Your task to perform on an android device: find photos in the google photos app Image 0: 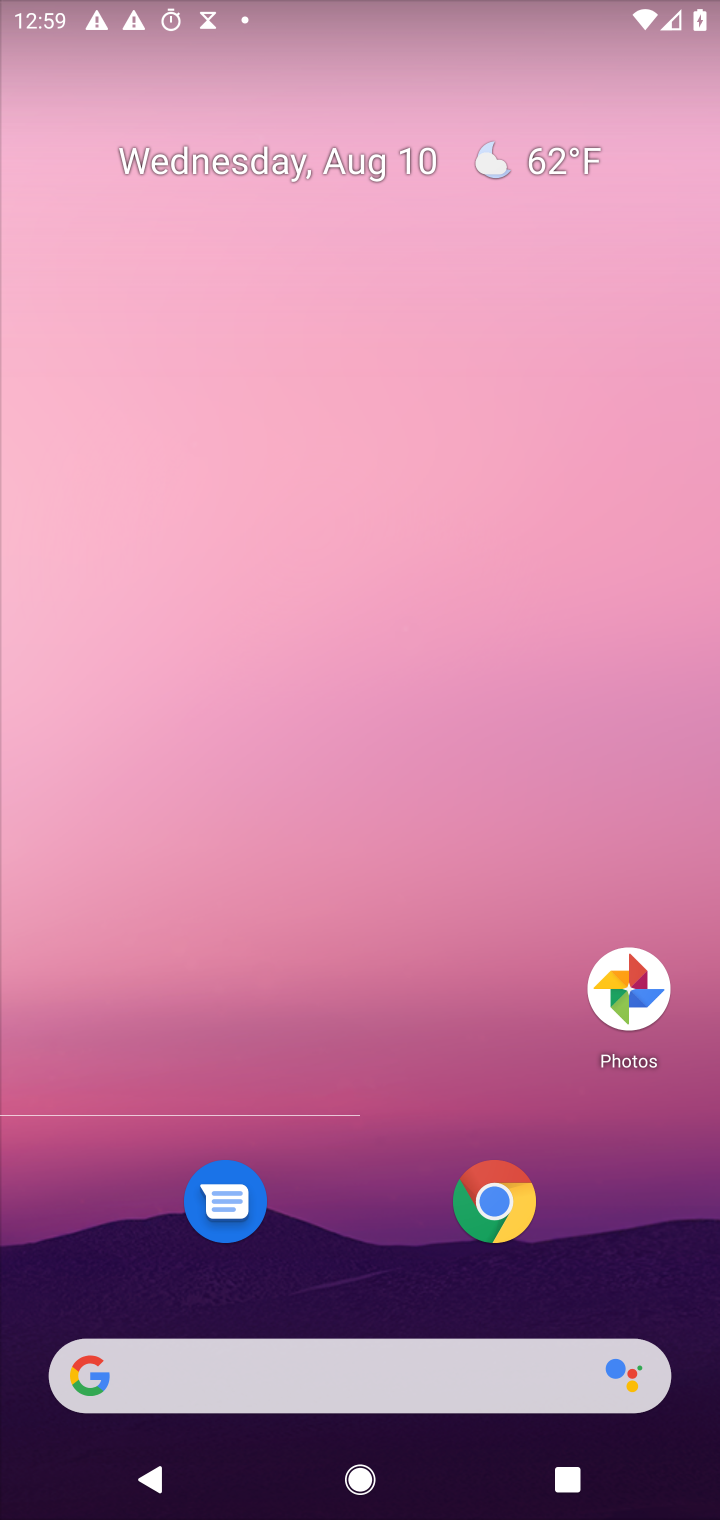
Step 0: press home button
Your task to perform on an android device: find photos in the google photos app Image 1: 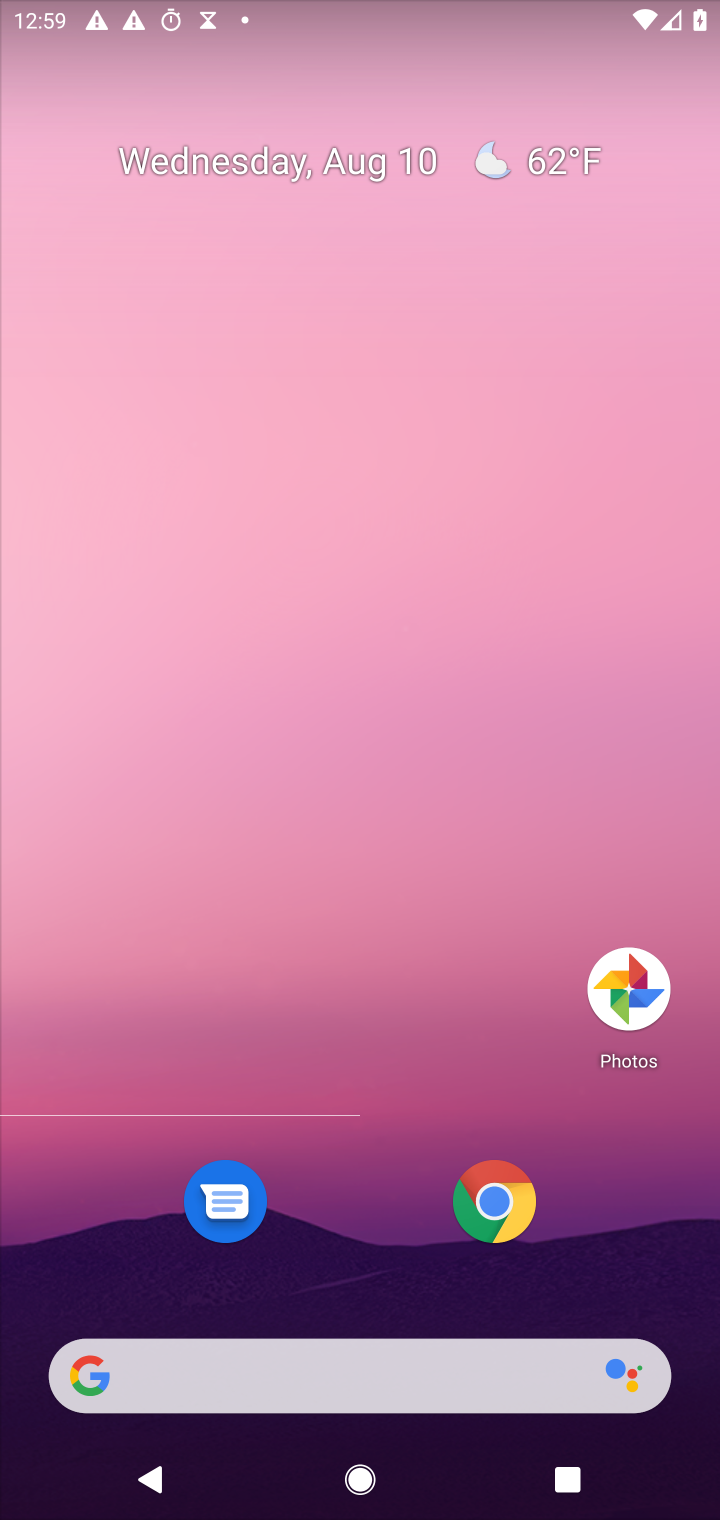
Step 1: drag from (345, 1214) to (281, 3)
Your task to perform on an android device: find photos in the google photos app Image 2: 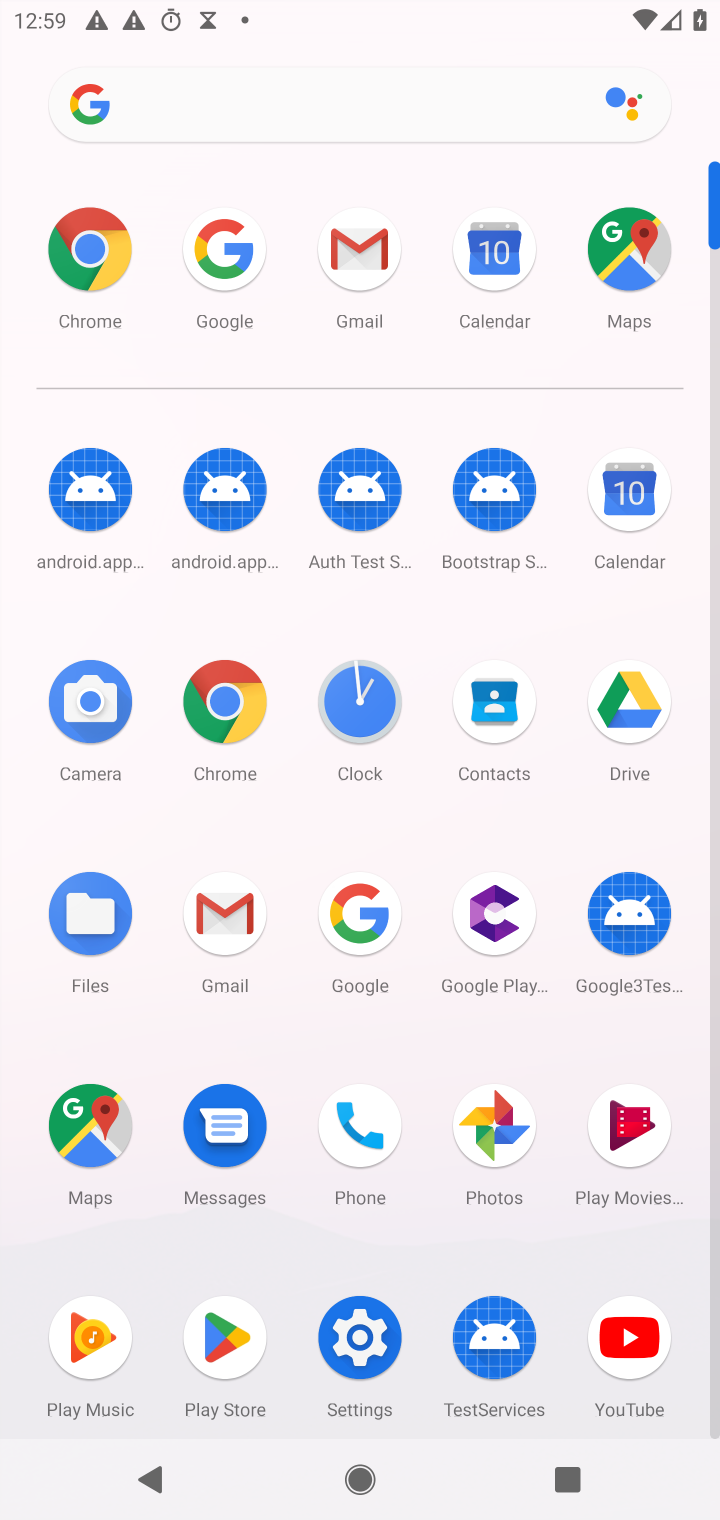
Step 2: click (505, 1134)
Your task to perform on an android device: find photos in the google photos app Image 3: 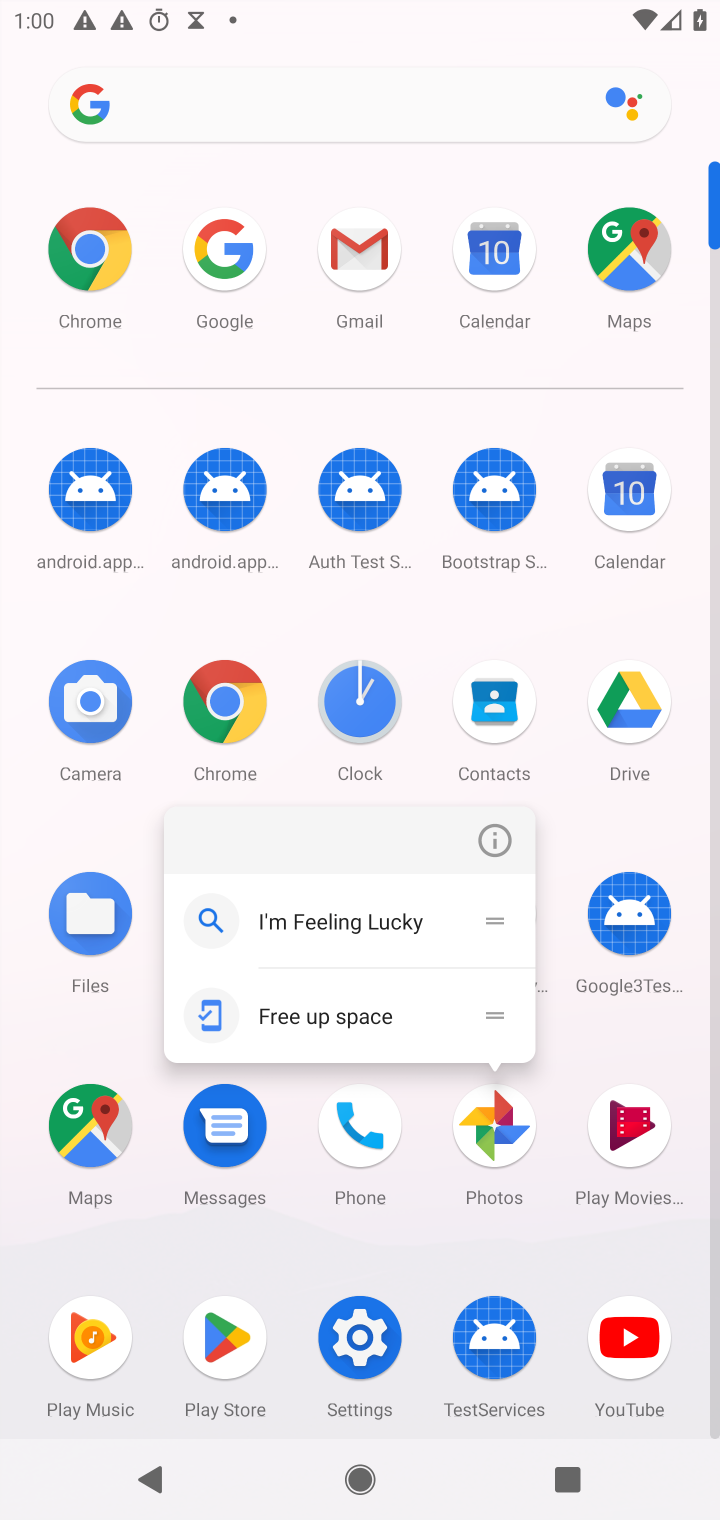
Step 3: click (504, 1130)
Your task to perform on an android device: find photos in the google photos app Image 4: 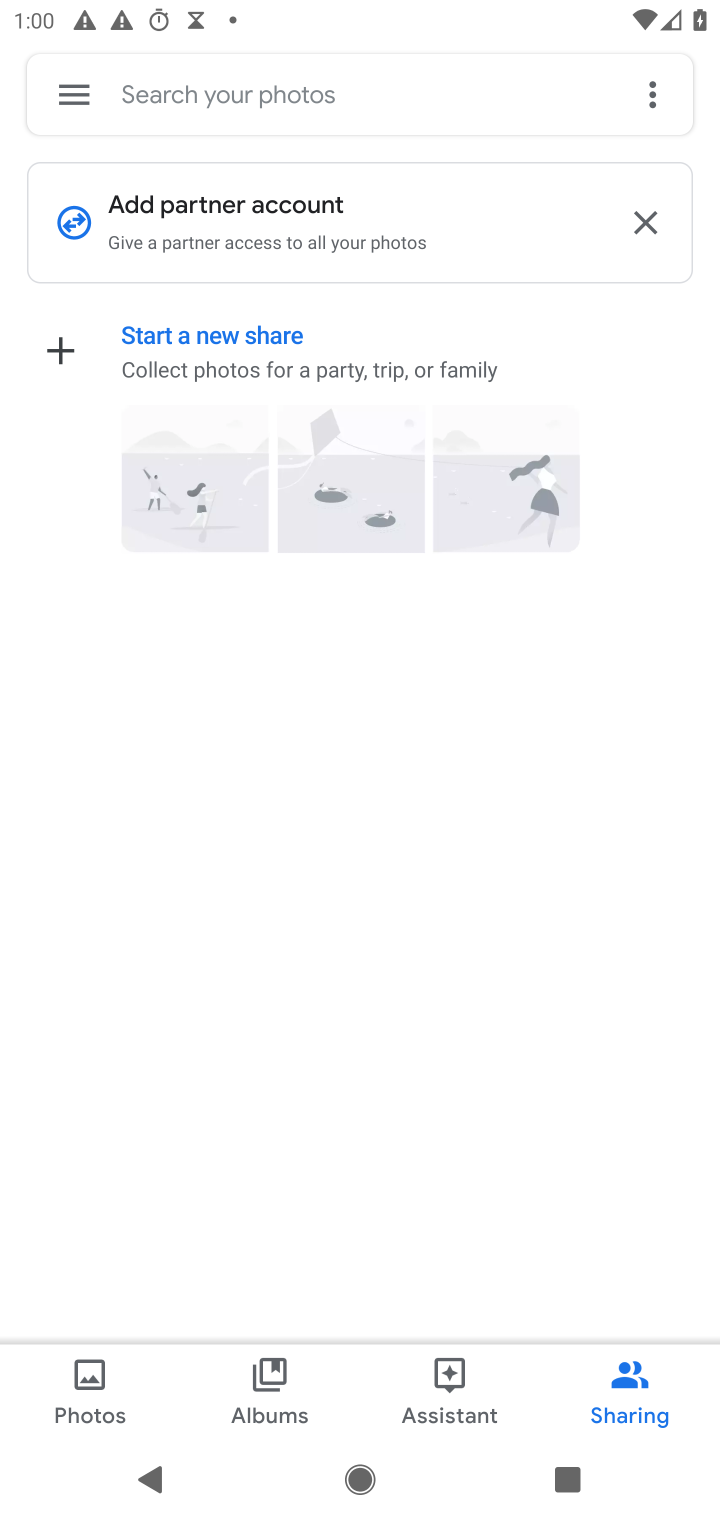
Step 4: click (99, 1382)
Your task to perform on an android device: find photos in the google photos app Image 5: 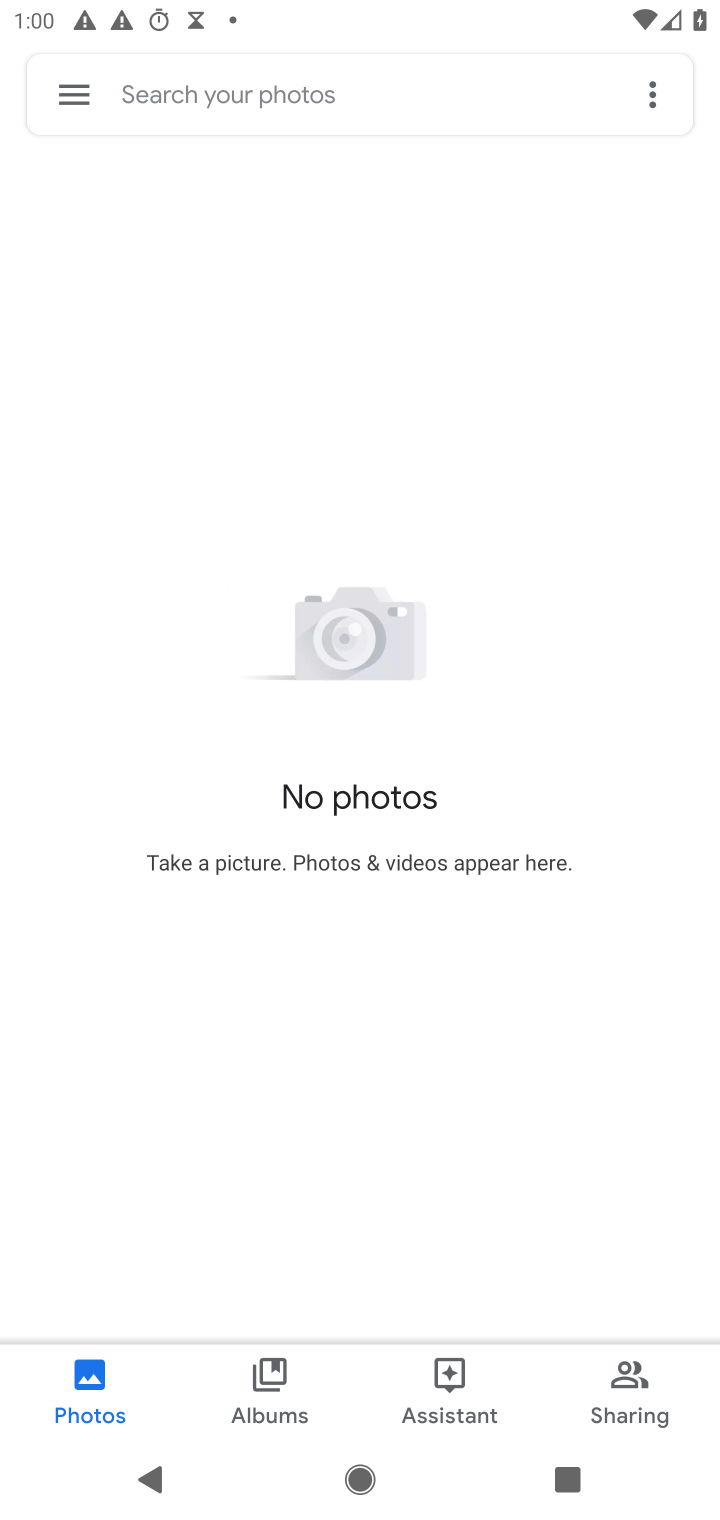
Step 5: task complete